Your task to perform on an android device: all mails in gmail Image 0: 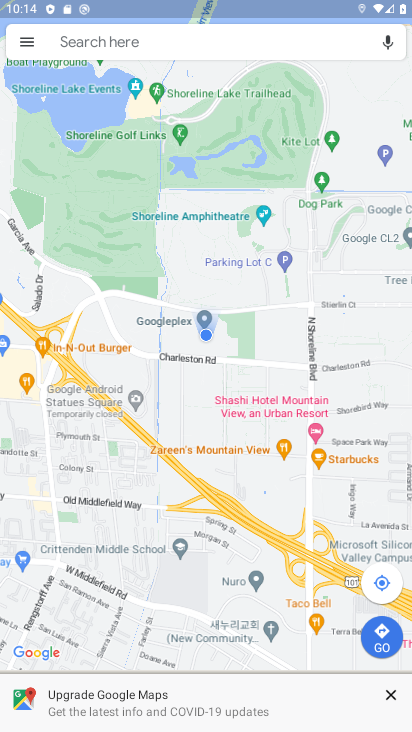
Step 0: click (301, 173)
Your task to perform on an android device: all mails in gmail Image 1: 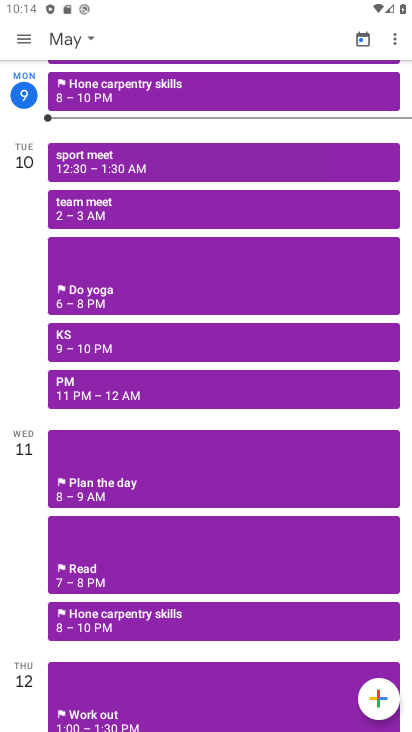
Step 1: drag from (201, 638) to (207, 344)
Your task to perform on an android device: all mails in gmail Image 2: 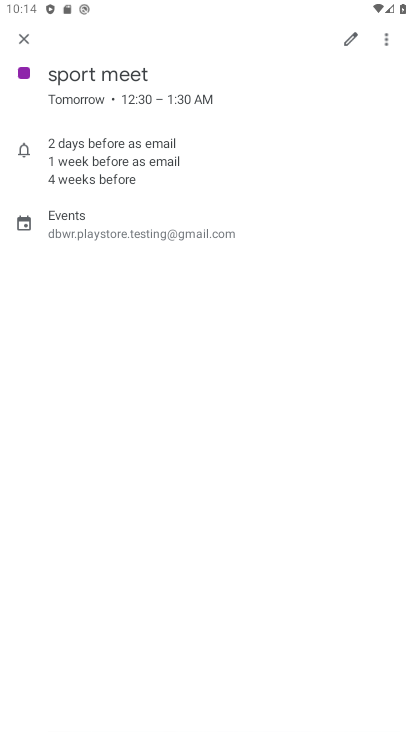
Step 2: click (15, 32)
Your task to perform on an android device: all mails in gmail Image 3: 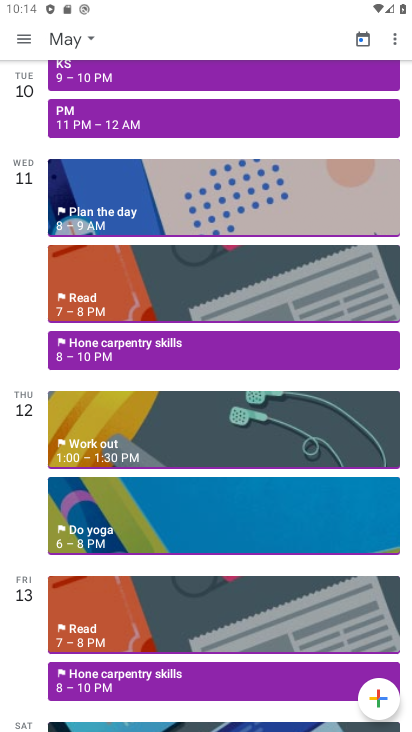
Step 3: press home button
Your task to perform on an android device: all mails in gmail Image 4: 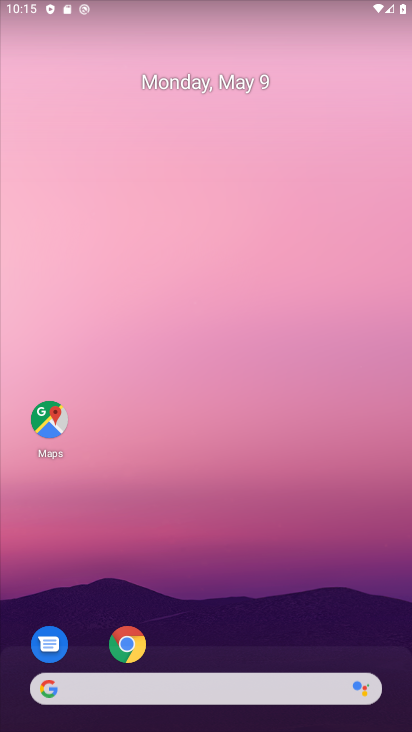
Step 4: drag from (213, 643) to (228, 316)
Your task to perform on an android device: all mails in gmail Image 5: 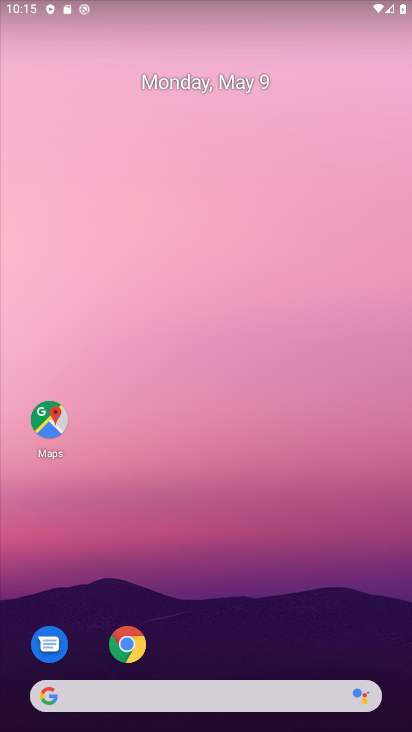
Step 5: drag from (224, 611) to (226, 310)
Your task to perform on an android device: all mails in gmail Image 6: 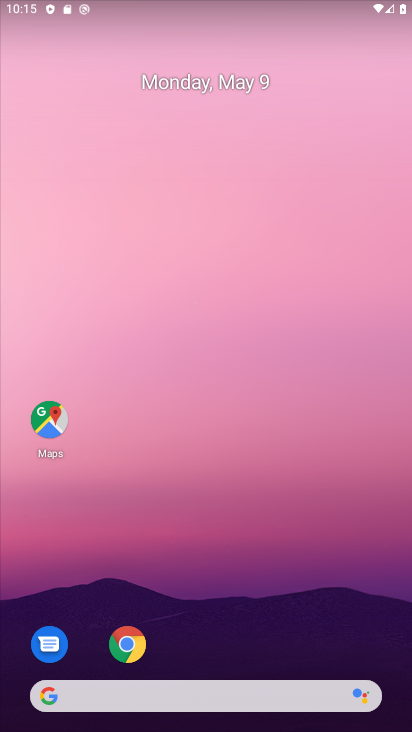
Step 6: drag from (212, 662) to (279, 10)
Your task to perform on an android device: all mails in gmail Image 7: 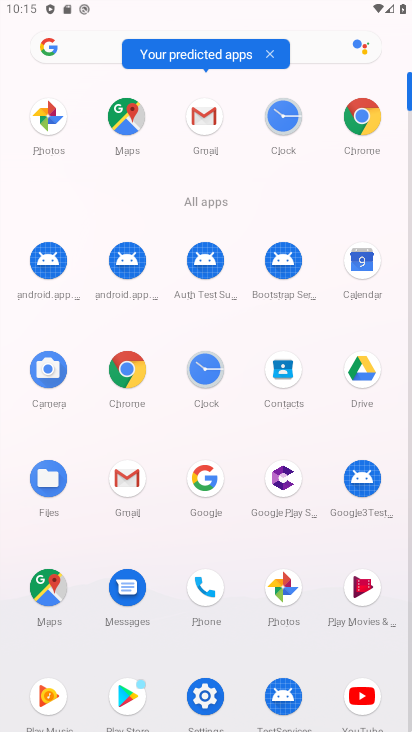
Step 7: click (208, 139)
Your task to perform on an android device: all mails in gmail Image 8: 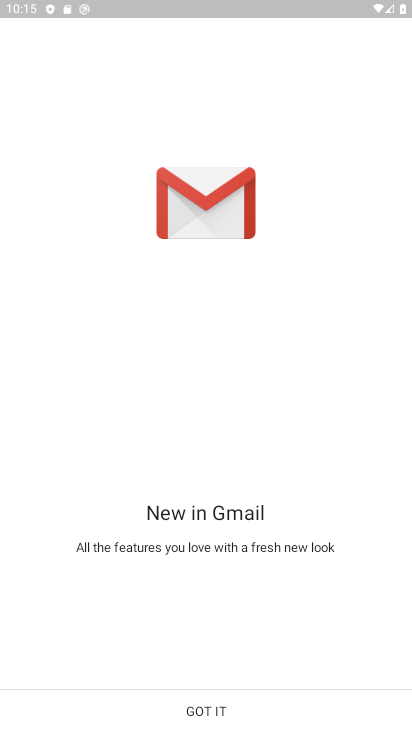
Step 8: click (213, 698)
Your task to perform on an android device: all mails in gmail Image 9: 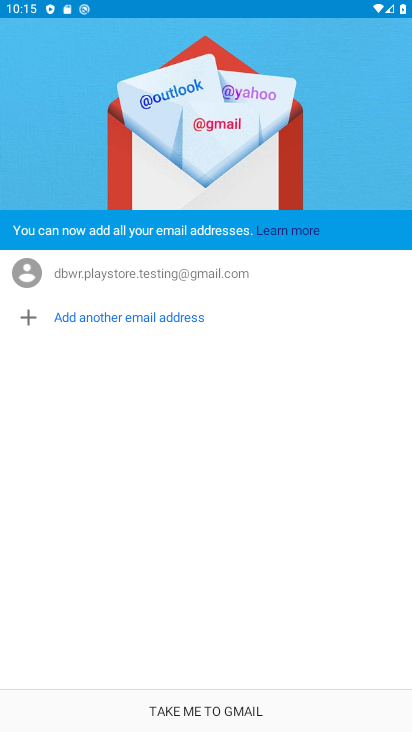
Step 9: click (229, 708)
Your task to perform on an android device: all mails in gmail Image 10: 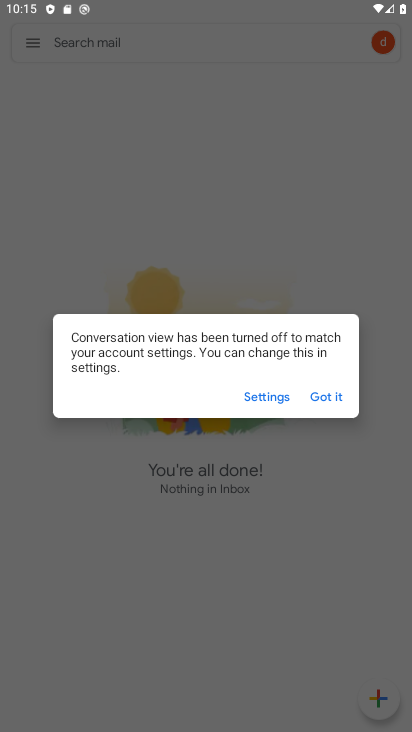
Step 10: click (326, 395)
Your task to perform on an android device: all mails in gmail Image 11: 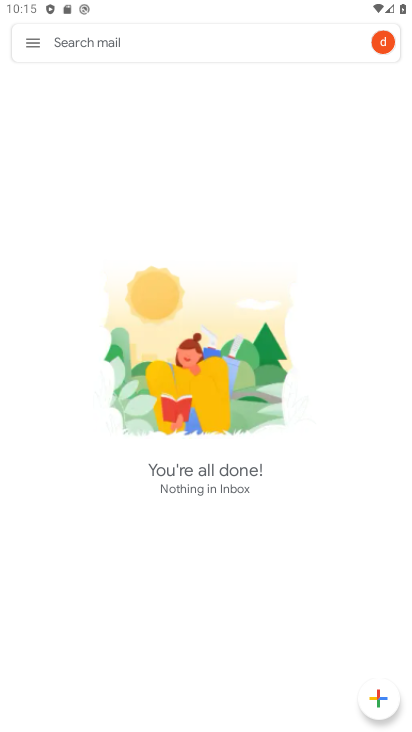
Step 11: click (39, 35)
Your task to perform on an android device: all mails in gmail Image 12: 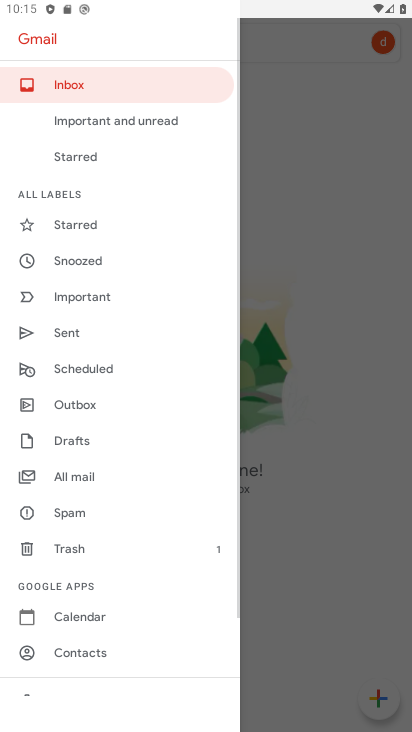
Step 12: click (94, 483)
Your task to perform on an android device: all mails in gmail Image 13: 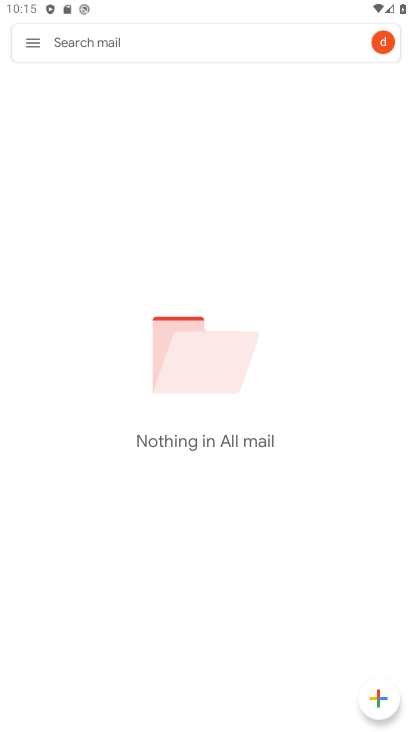
Step 13: task complete